Your task to perform on an android device: View the shopping cart on bestbuy. Add apple airpods pro to the cart on bestbuy, then select checkout. Image 0: 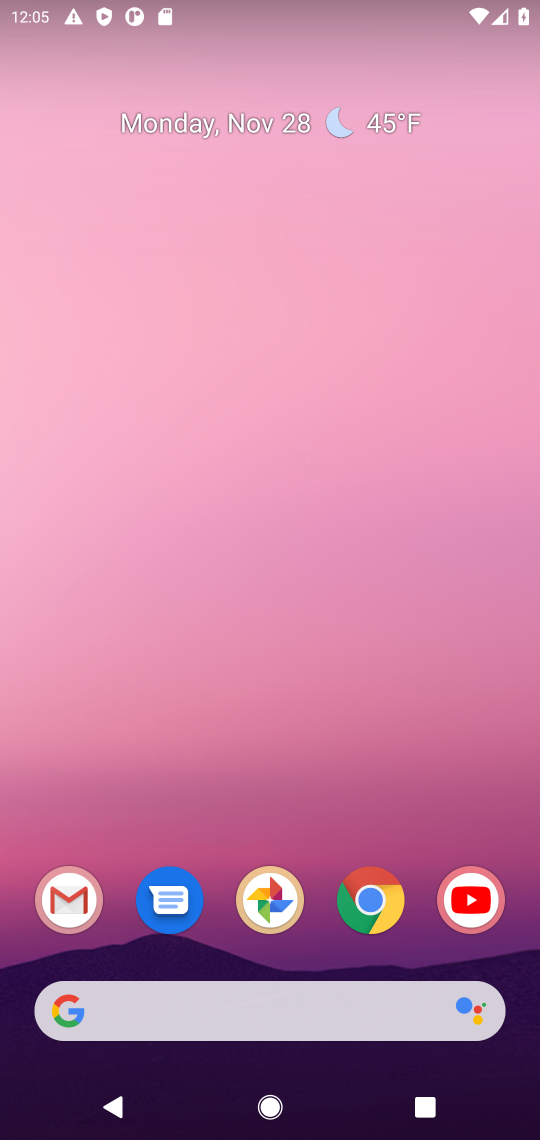
Step 0: click (364, 914)
Your task to perform on an android device: View the shopping cart on bestbuy. Add apple airpods pro to the cart on bestbuy, then select checkout. Image 1: 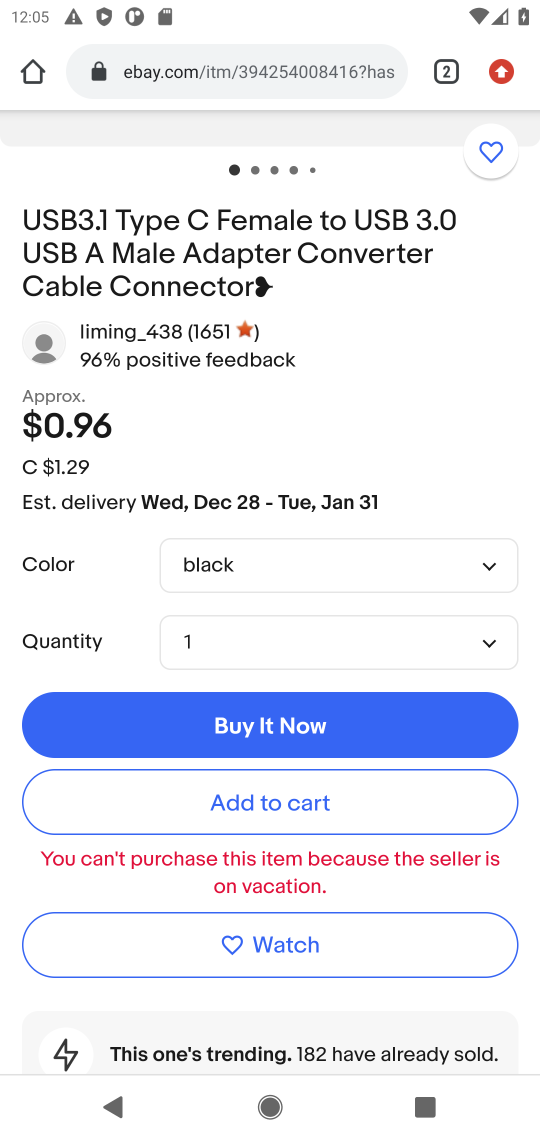
Step 1: click (209, 69)
Your task to perform on an android device: View the shopping cart on bestbuy. Add apple airpods pro to the cart on bestbuy, then select checkout. Image 2: 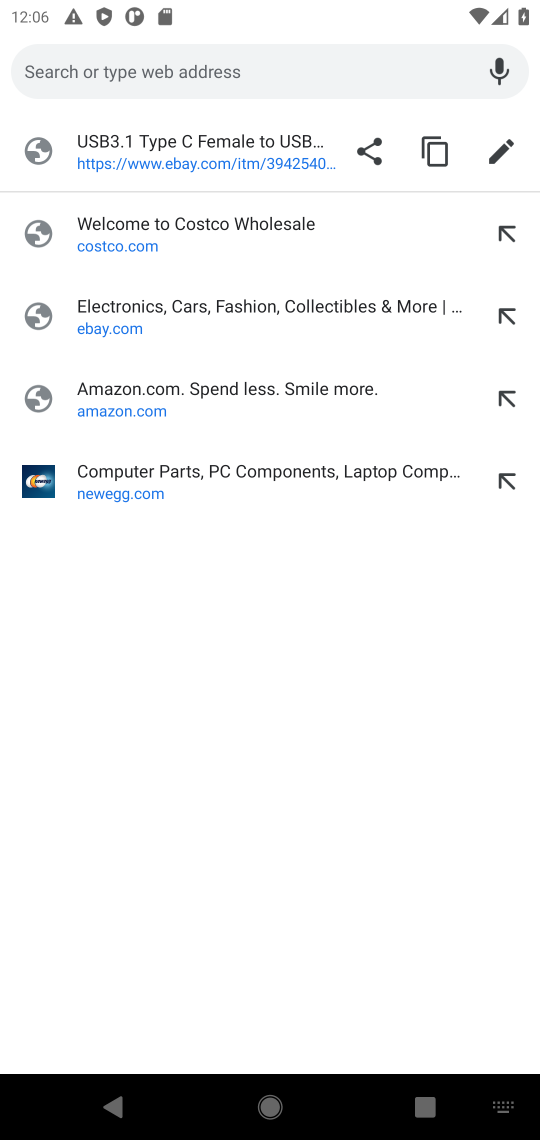
Step 2: type "bestbuy.com"
Your task to perform on an android device: View the shopping cart on bestbuy. Add apple airpods pro to the cart on bestbuy, then select checkout. Image 3: 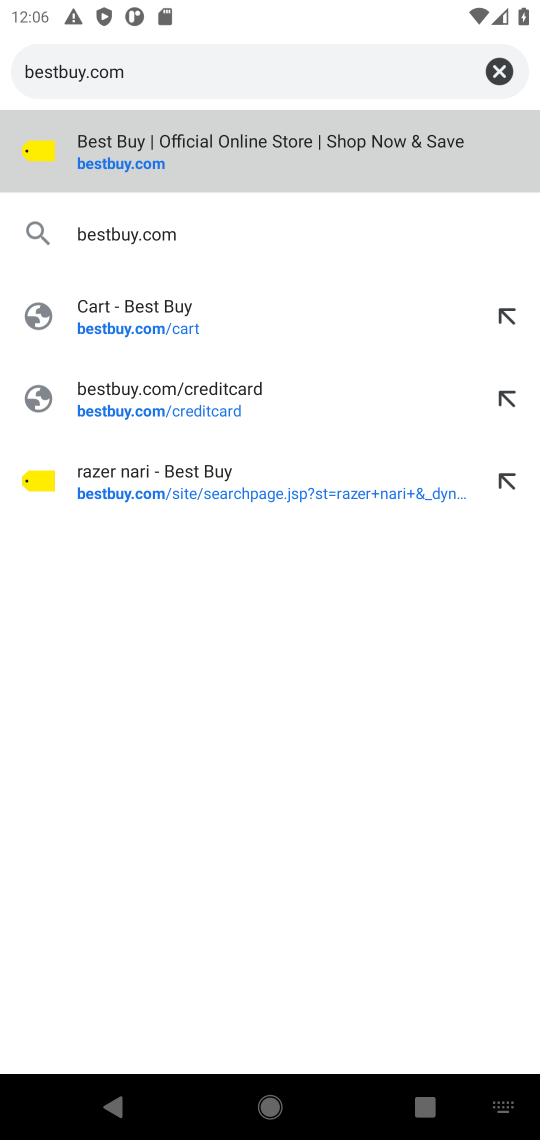
Step 3: click (101, 167)
Your task to perform on an android device: View the shopping cart on bestbuy. Add apple airpods pro to the cart on bestbuy, then select checkout. Image 4: 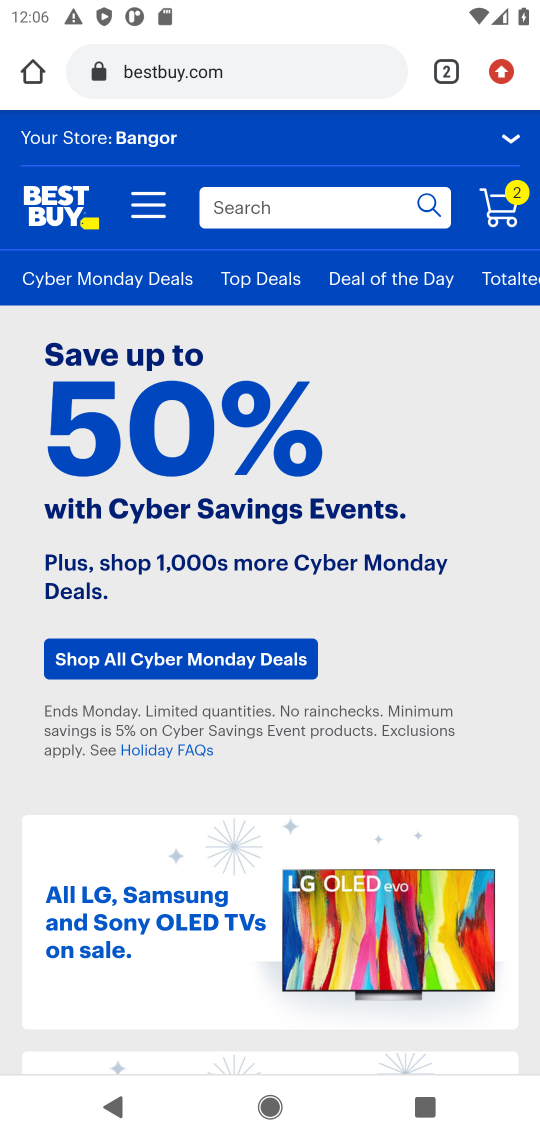
Step 4: click (505, 204)
Your task to perform on an android device: View the shopping cart on bestbuy. Add apple airpods pro to the cart on bestbuy, then select checkout. Image 5: 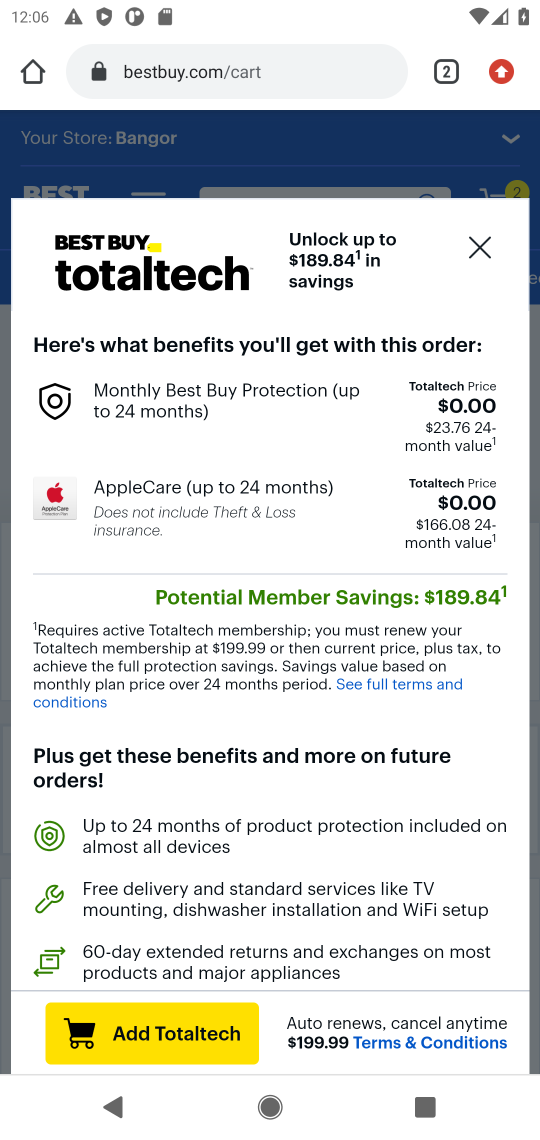
Step 5: click (476, 245)
Your task to perform on an android device: View the shopping cart on bestbuy. Add apple airpods pro to the cart on bestbuy, then select checkout. Image 6: 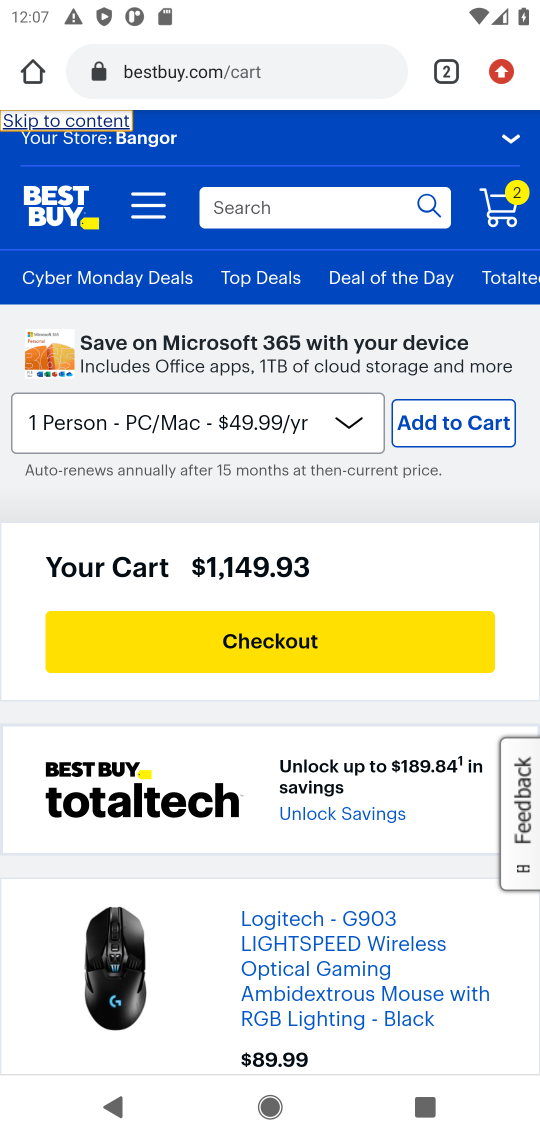
Step 6: click (263, 191)
Your task to perform on an android device: View the shopping cart on bestbuy. Add apple airpods pro to the cart on bestbuy, then select checkout. Image 7: 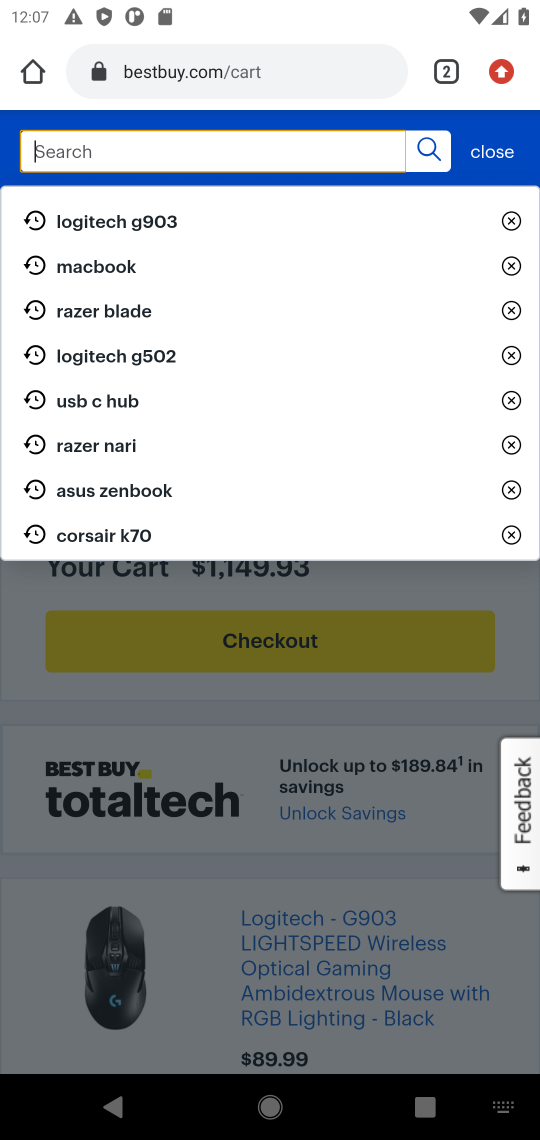
Step 7: type "apple airpods pro"
Your task to perform on an android device: View the shopping cart on bestbuy. Add apple airpods pro to the cart on bestbuy, then select checkout. Image 8: 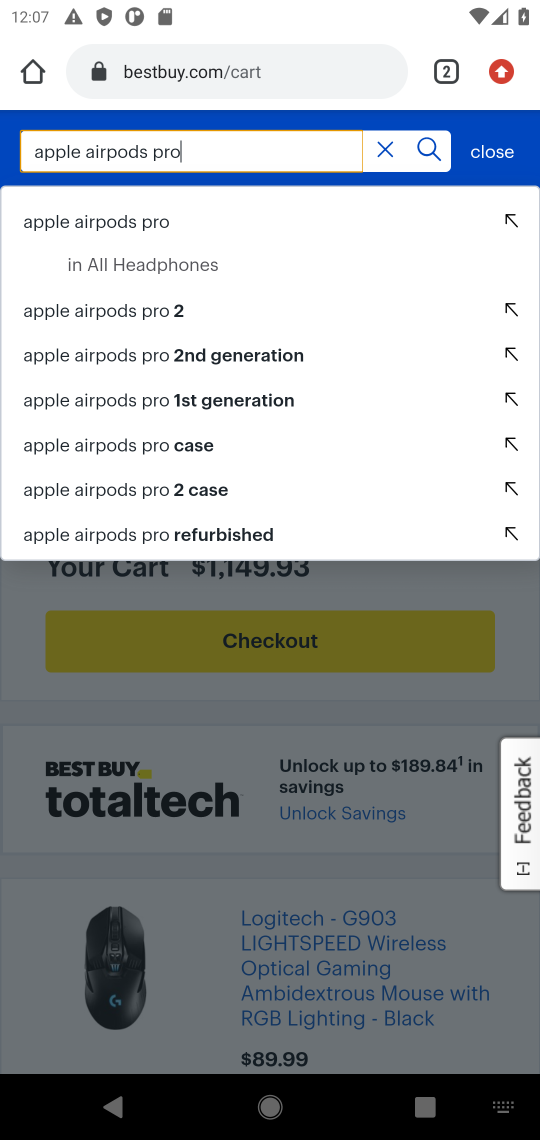
Step 8: click (89, 221)
Your task to perform on an android device: View the shopping cart on bestbuy. Add apple airpods pro to the cart on bestbuy, then select checkout. Image 9: 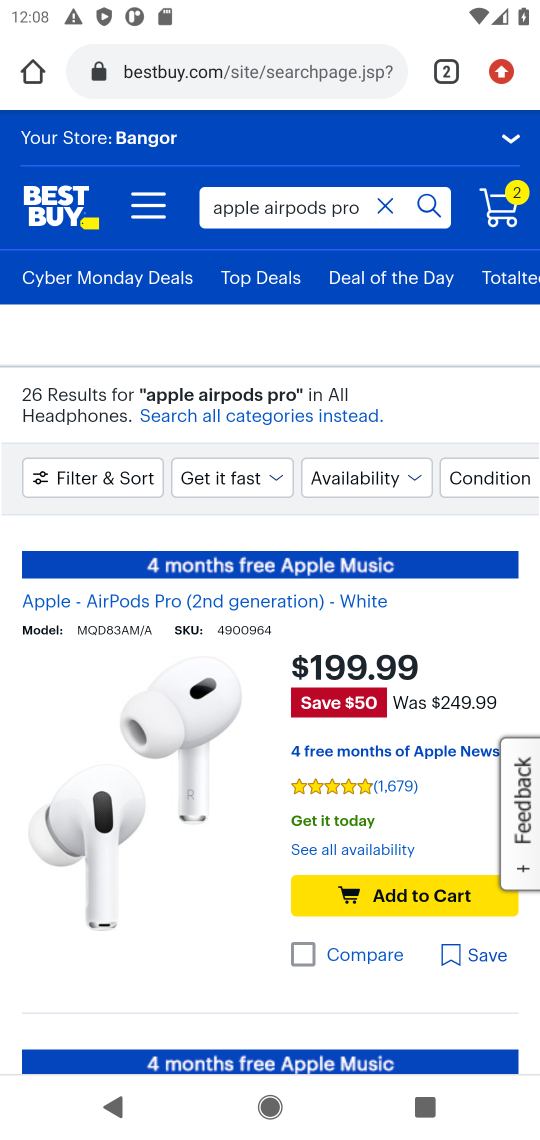
Step 9: click (509, 210)
Your task to perform on an android device: View the shopping cart on bestbuy. Add apple airpods pro to the cart on bestbuy, then select checkout. Image 10: 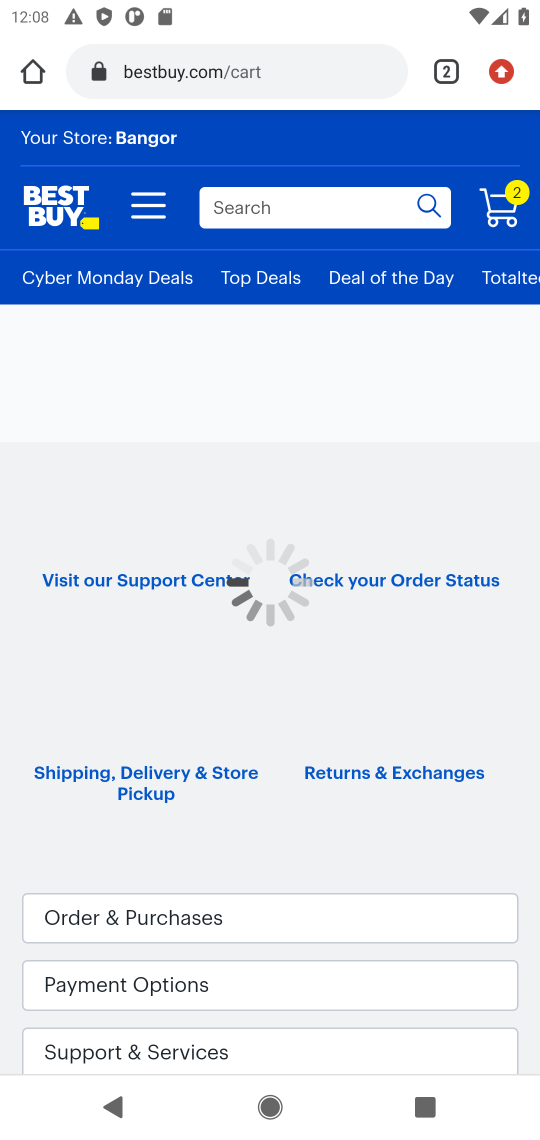
Step 10: click (252, 208)
Your task to perform on an android device: View the shopping cart on bestbuy. Add apple airpods pro to the cart on bestbuy, then select checkout. Image 11: 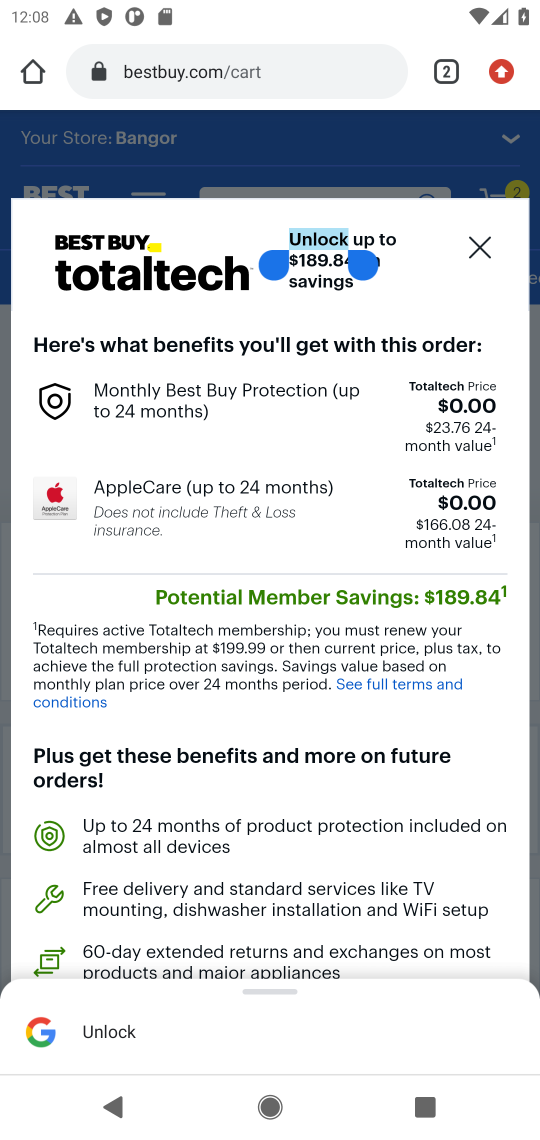
Step 11: click (472, 247)
Your task to perform on an android device: View the shopping cart on bestbuy. Add apple airpods pro to the cart on bestbuy, then select checkout. Image 12: 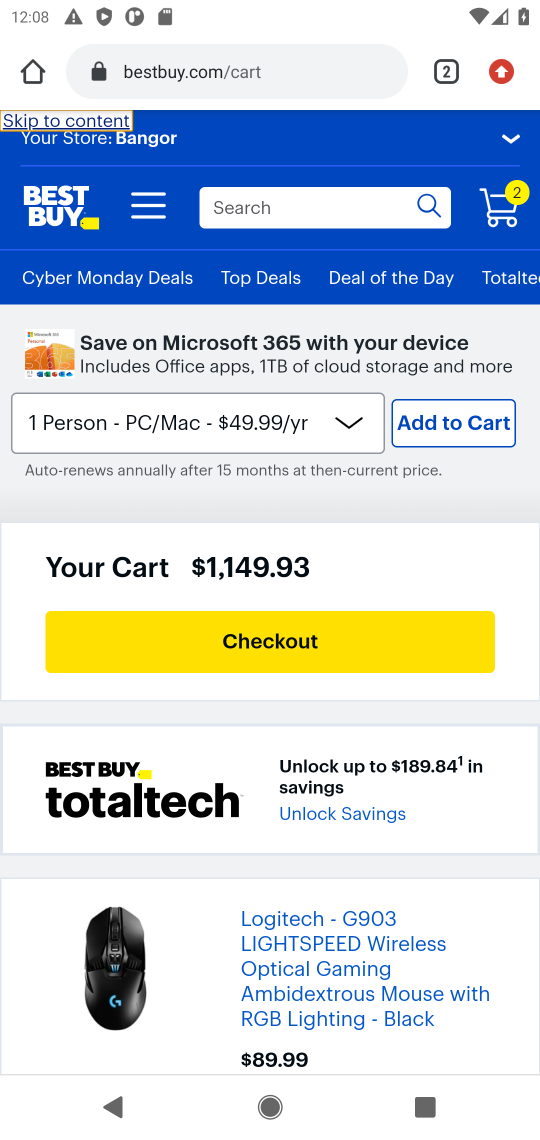
Step 12: click (292, 207)
Your task to perform on an android device: View the shopping cart on bestbuy. Add apple airpods pro to the cart on bestbuy, then select checkout. Image 13: 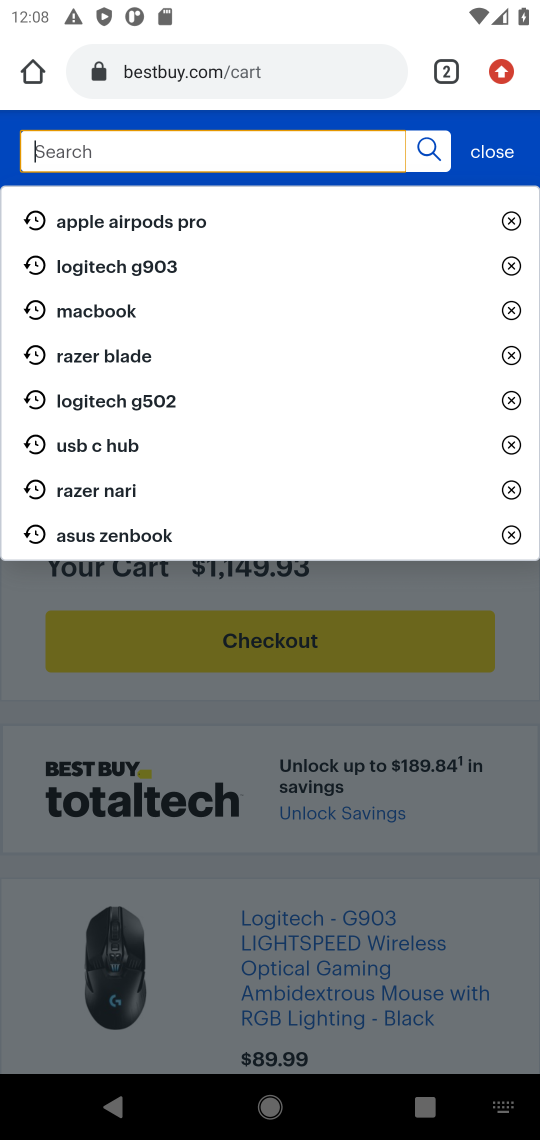
Step 13: type "apple airpods pro"
Your task to perform on an android device: View the shopping cart on bestbuy. Add apple airpods pro to the cart on bestbuy, then select checkout. Image 14: 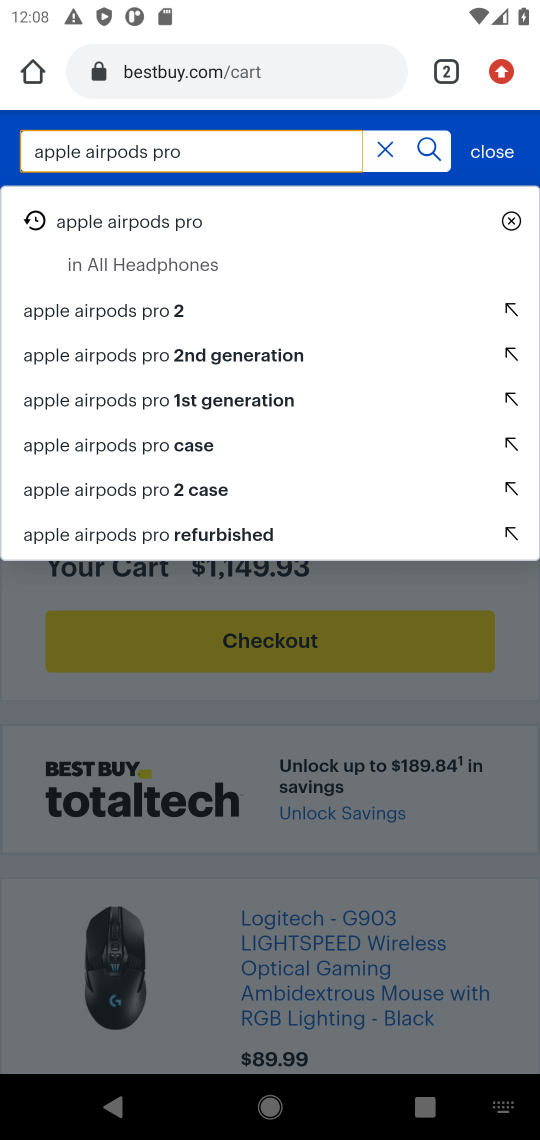
Step 14: click (104, 222)
Your task to perform on an android device: View the shopping cart on bestbuy. Add apple airpods pro to the cart on bestbuy, then select checkout. Image 15: 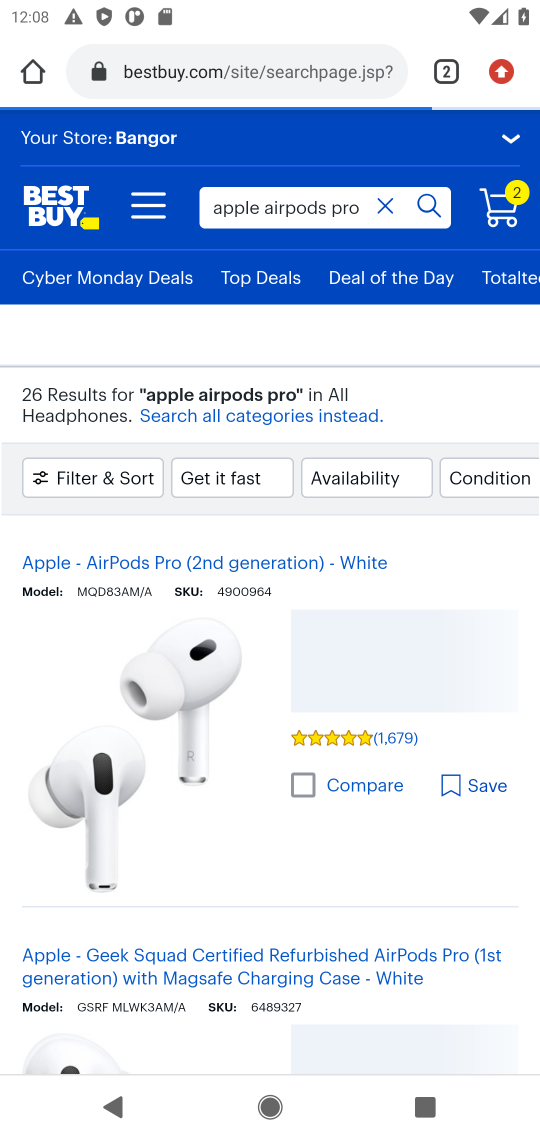
Step 15: drag from (217, 814) to (236, 485)
Your task to perform on an android device: View the shopping cart on bestbuy. Add apple airpods pro to the cart on bestbuy, then select checkout. Image 16: 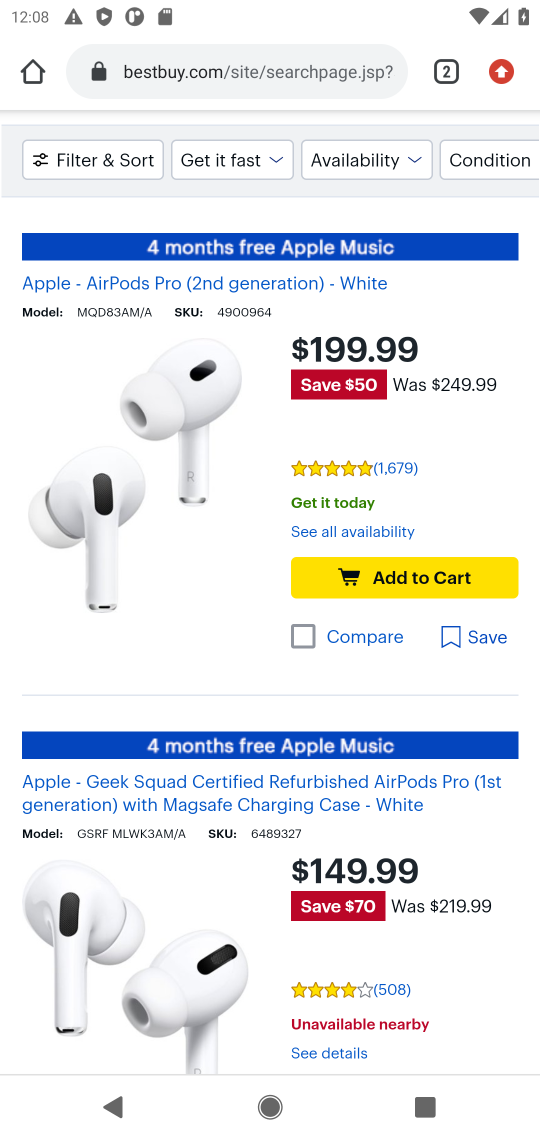
Step 16: click (414, 523)
Your task to perform on an android device: View the shopping cart on bestbuy. Add apple airpods pro to the cart on bestbuy, then select checkout. Image 17: 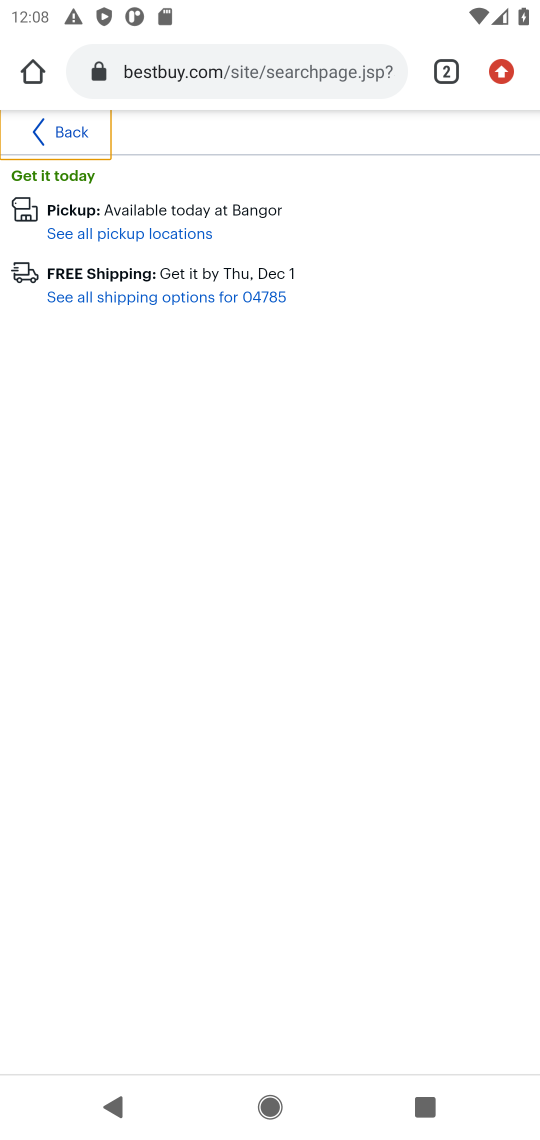
Step 17: click (408, 575)
Your task to perform on an android device: View the shopping cart on bestbuy. Add apple airpods pro to the cart on bestbuy, then select checkout. Image 18: 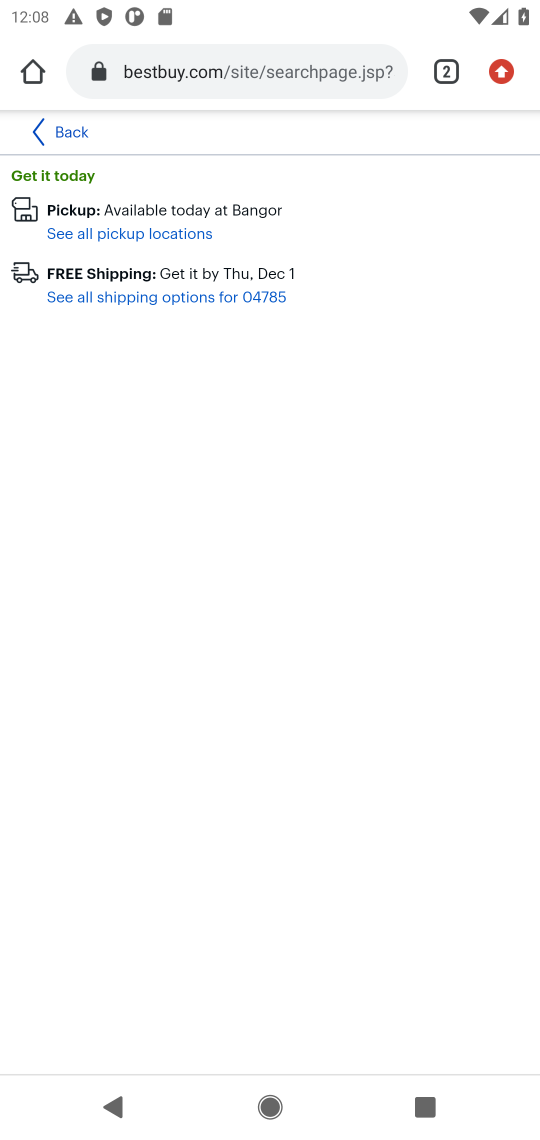
Step 18: click (33, 136)
Your task to perform on an android device: View the shopping cart on bestbuy. Add apple airpods pro to the cart on bestbuy, then select checkout. Image 19: 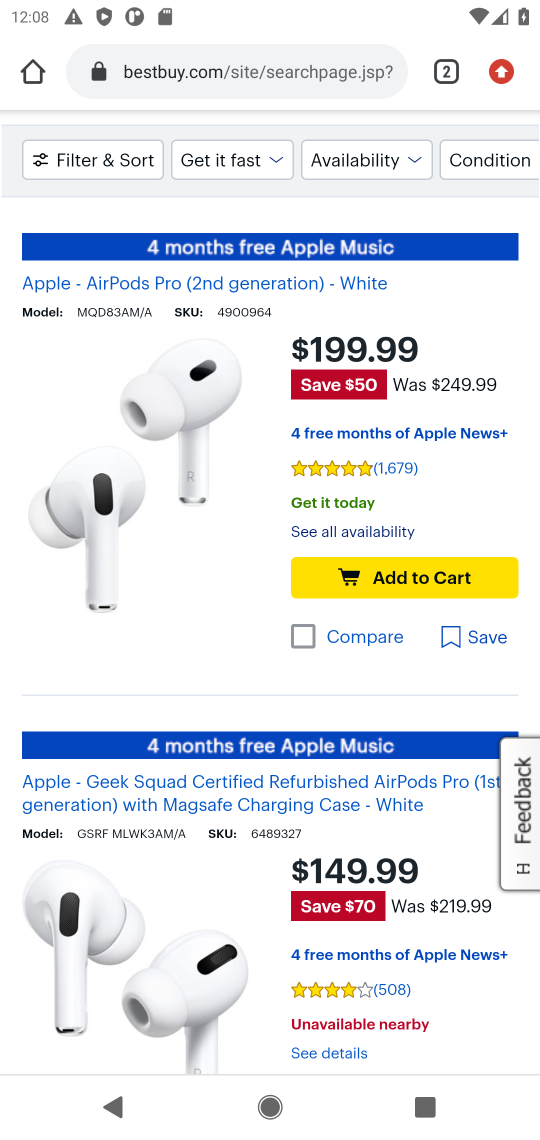
Step 19: click (391, 574)
Your task to perform on an android device: View the shopping cart on bestbuy. Add apple airpods pro to the cart on bestbuy, then select checkout. Image 20: 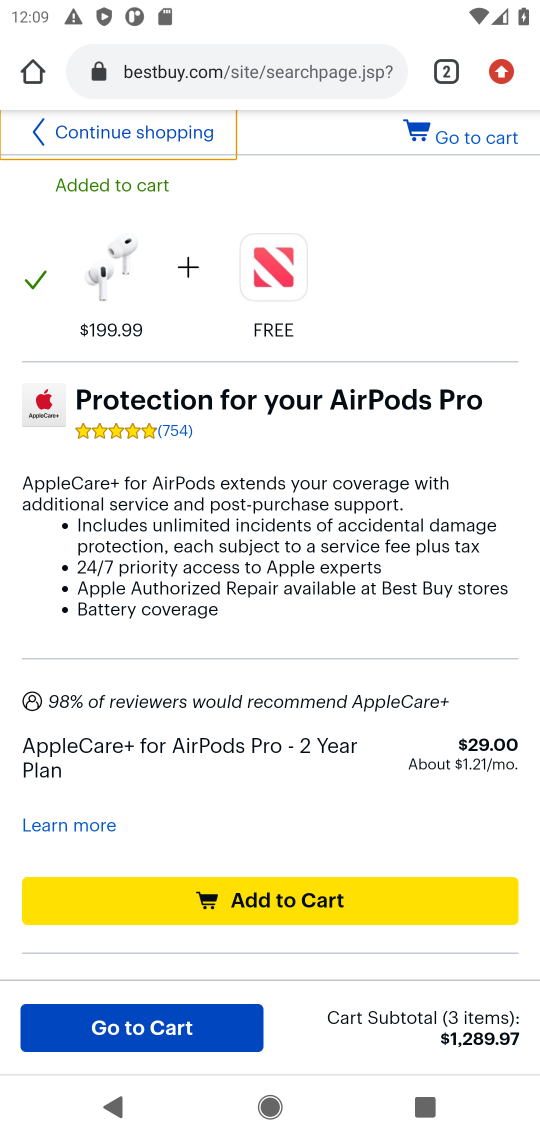
Step 20: click (457, 130)
Your task to perform on an android device: View the shopping cart on bestbuy. Add apple airpods pro to the cart on bestbuy, then select checkout. Image 21: 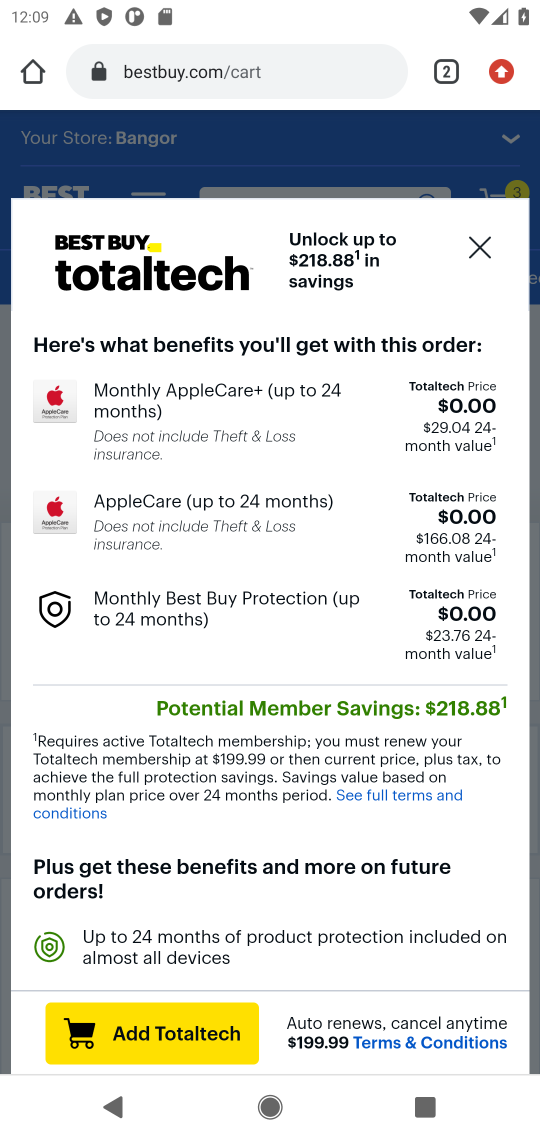
Step 21: click (485, 252)
Your task to perform on an android device: View the shopping cart on bestbuy. Add apple airpods pro to the cart on bestbuy, then select checkout. Image 22: 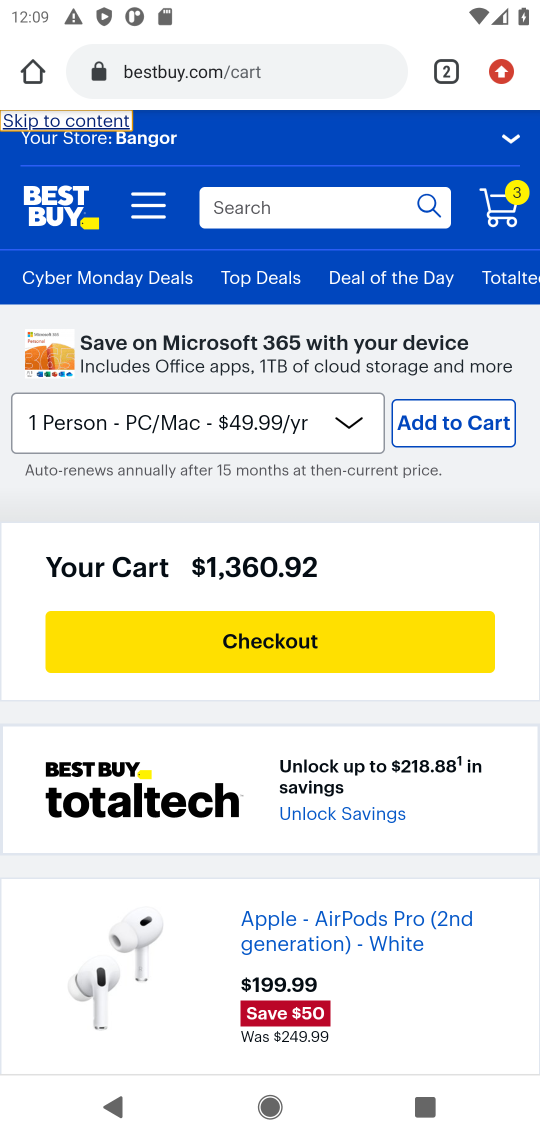
Step 22: click (241, 651)
Your task to perform on an android device: View the shopping cart on bestbuy. Add apple airpods pro to the cart on bestbuy, then select checkout. Image 23: 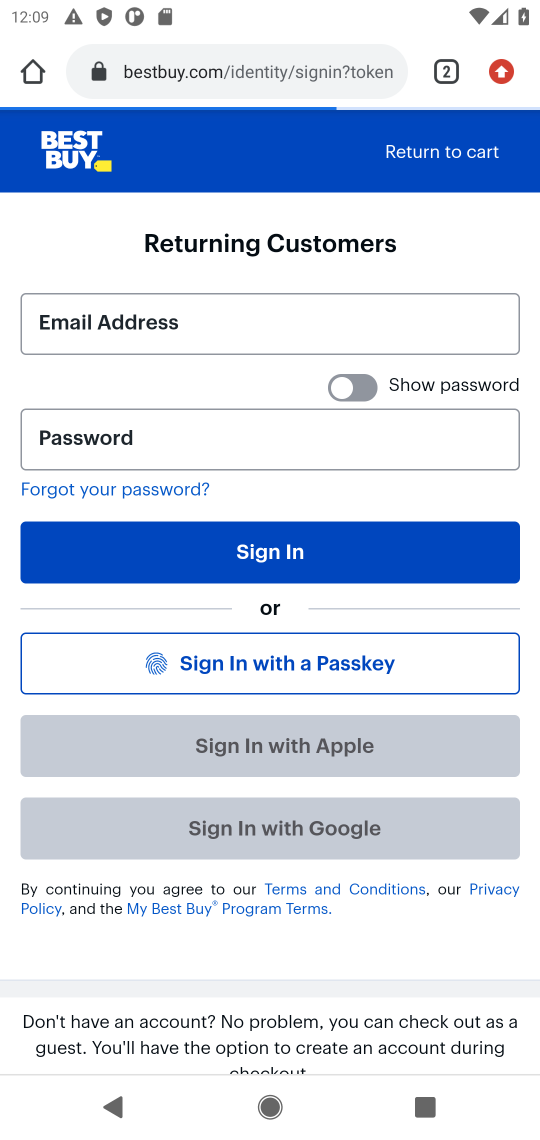
Step 23: task complete